Your task to perform on an android device: Set the phone to "Do not disturb". Image 0: 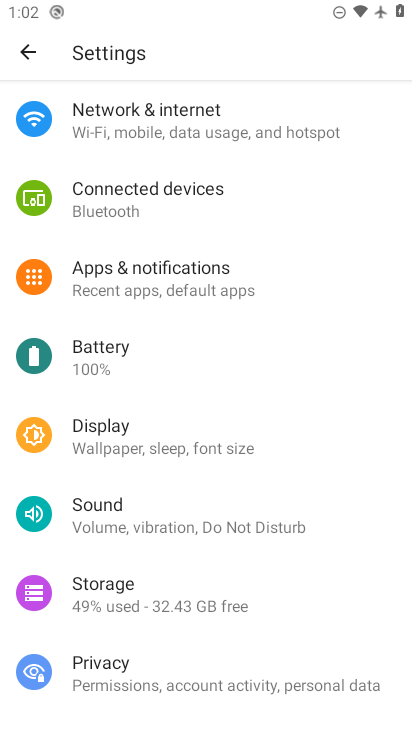
Step 0: press home button
Your task to perform on an android device: Set the phone to "Do not disturb". Image 1: 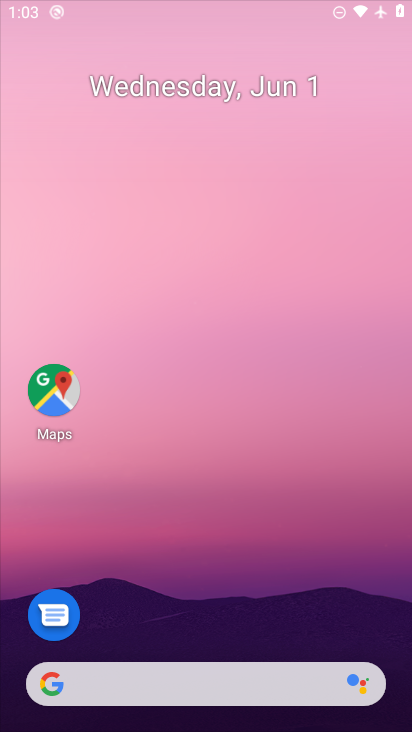
Step 1: drag from (205, 615) to (274, 35)
Your task to perform on an android device: Set the phone to "Do not disturb". Image 2: 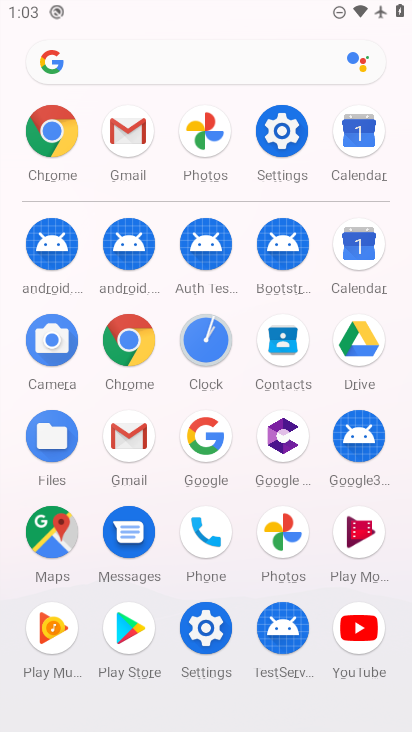
Step 2: click (207, 630)
Your task to perform on an android device: Set the phone to "Do not disturb". Image 3: 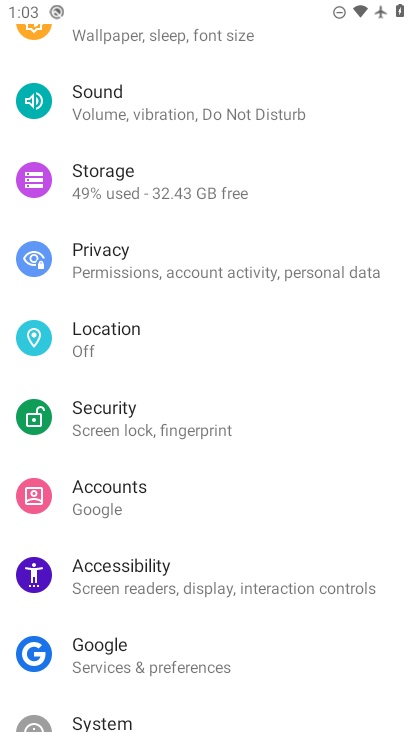
Step 3: click (189, 102)
Your task to perform on an android device: Set the phone to "Do not disturb". Image 4: 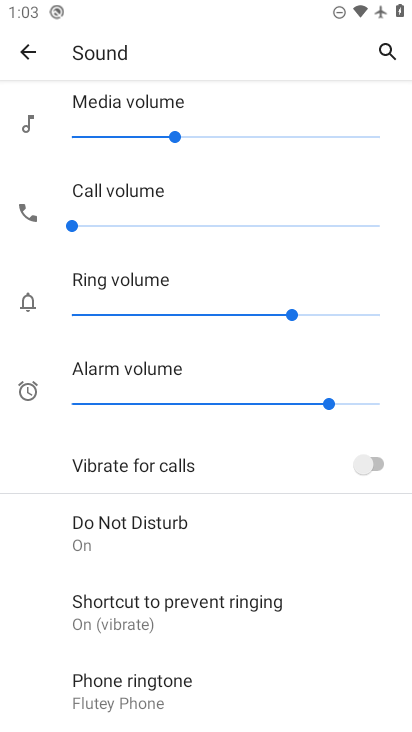
Step 4: click (177, 532)
Your task to perform on an android device: Set the phone to "Do not disturb". Image 5: 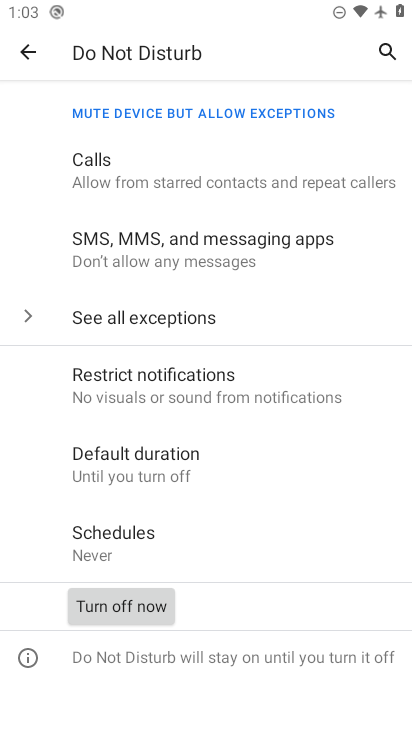
Step 5: task complete